Your task to perform on an android device: Open the calendar and show me this week's events? Image 0: 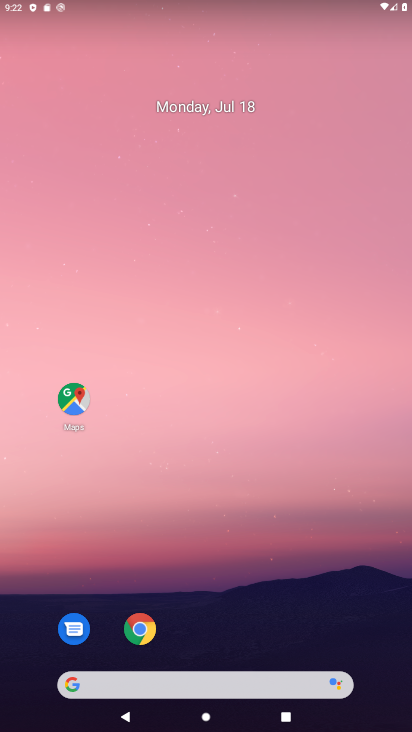
Step 0: drag from (174, 696) to (139, 229)
Your task to perform on an android device: Open the calendar and show me this week's events? Image 1: 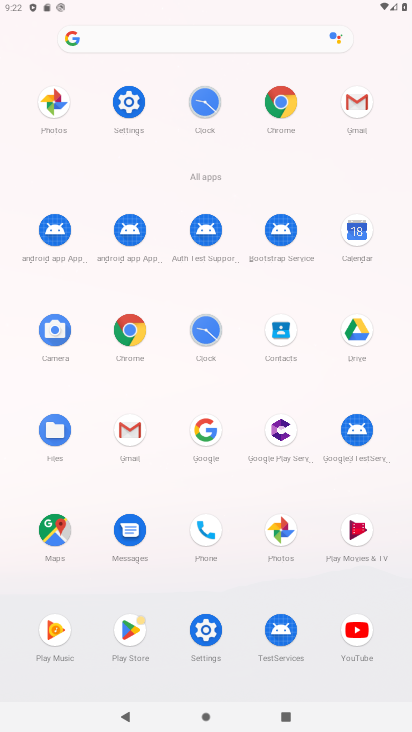
Step 1: click (354, 245)
Your task to perform on an android device: Open the calendar and show me this week's events? Image 2: 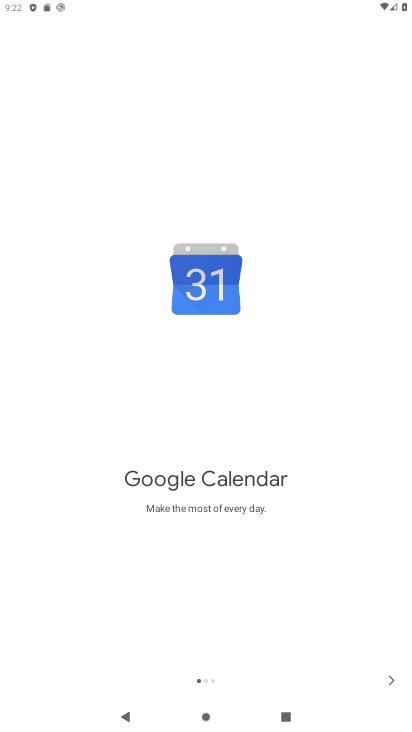
Step 2: click (389, 678)
Your task to perform on an android device: Open the calendar and show me this week's events? Image 3: 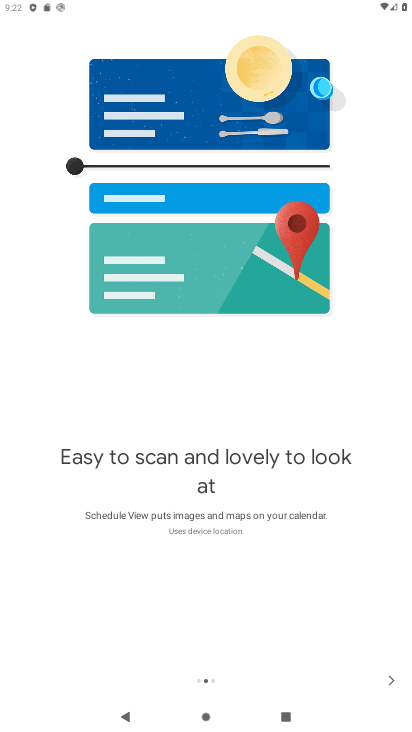
Step 3: click (389, 678)
Your task to perform on an android device: Open the calendar and show me this week's events? Image 4: 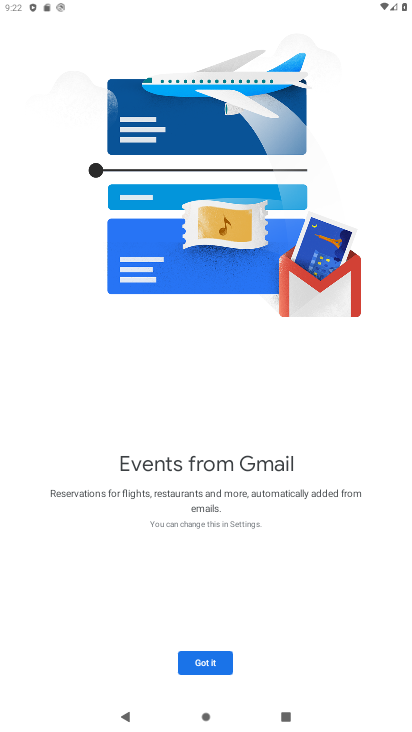
Step 4: click (203, 670)
Your task to perform on an android device: Open the calendar and show me this week's events? Image 5: 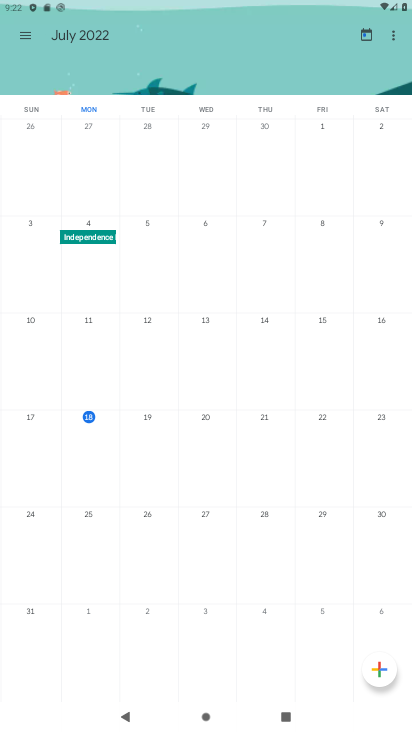
Step 5: task complete